Your task to perform on an android device: see tabs open on other devices in the chrome app Image 0: 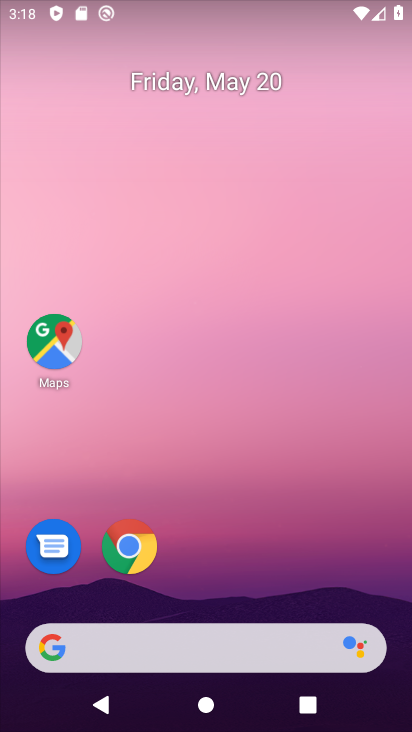
Step 0: click (130, 540)
Your task to perform on an android device: see tabs open on other devices in the chrome app Image 1: 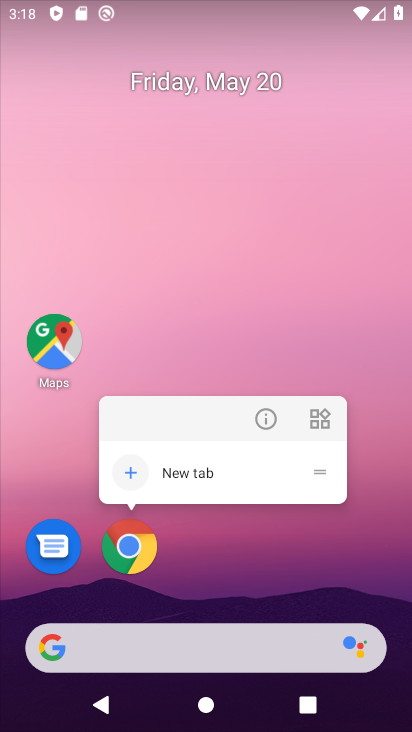
Step 1: click (129, 538)
Your task to perform on an android device: see tabs open on other devices in the chrome app Image 2: 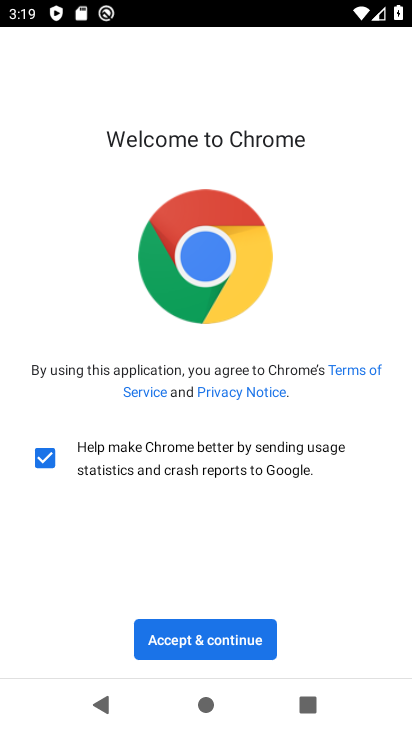
Step 2: click (223, 624)
Your task to perform on an android device: see tabs open on other devices in the chrome app Image 3: 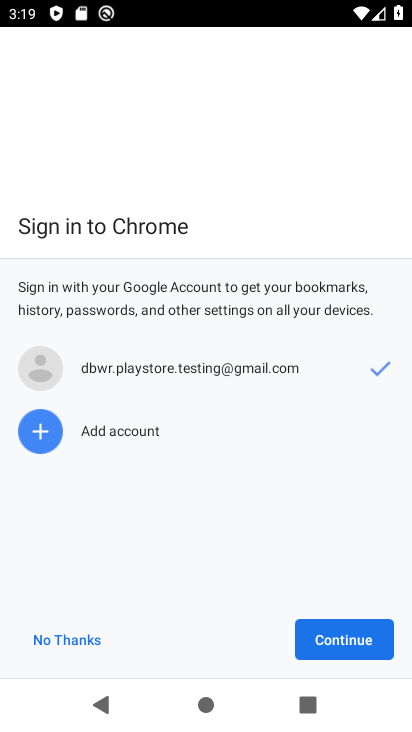
Step 3: click (338, 634)
Your task to perform on an android device: see tabs open on other devices in the chrome app Image 4: 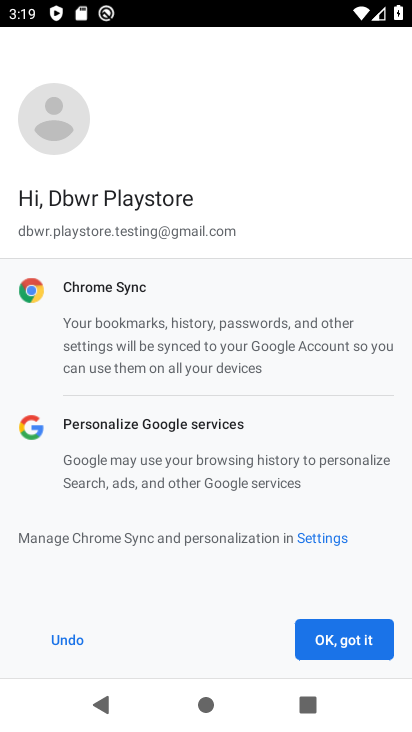
Step 4: click (338, 632)
Your task to perform on an android device: see tabs open on other devices in the chrome app Image 5: 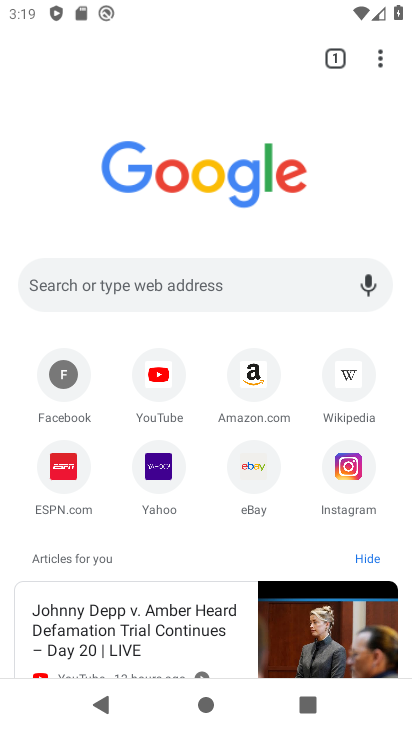
Step 5: task complete